Your task to perform on an android device: turn off wifi Image 0: 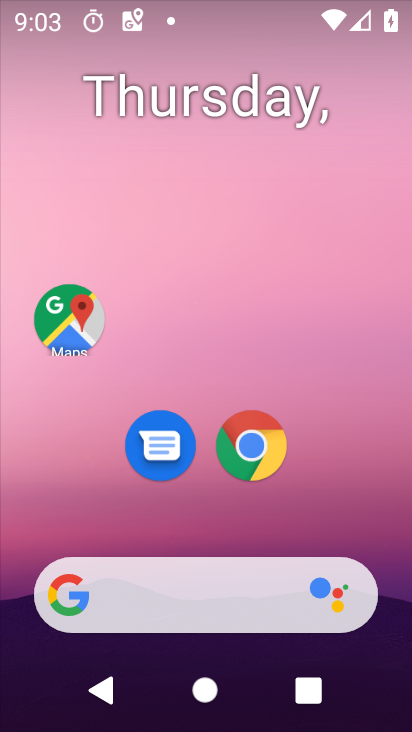
Step 0: drag from (381, 507) to (255, 16)
Your task to perform on an android device: turn off wifi Image 1: 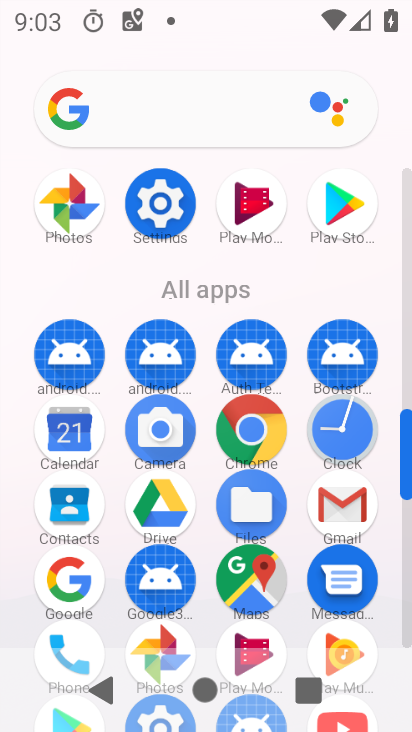
Step 1: click (168, 215)
Your task to perform on an android device: turn off wifi Image 2: 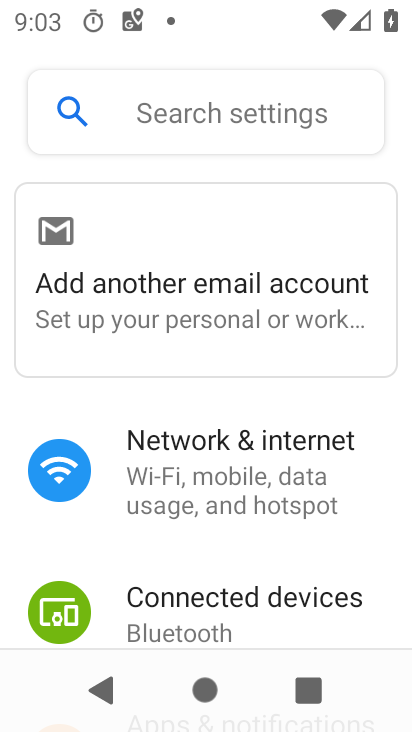
Step 2: click (208, 450)
Your task to perform on an android device: turn off wifi Image 3: 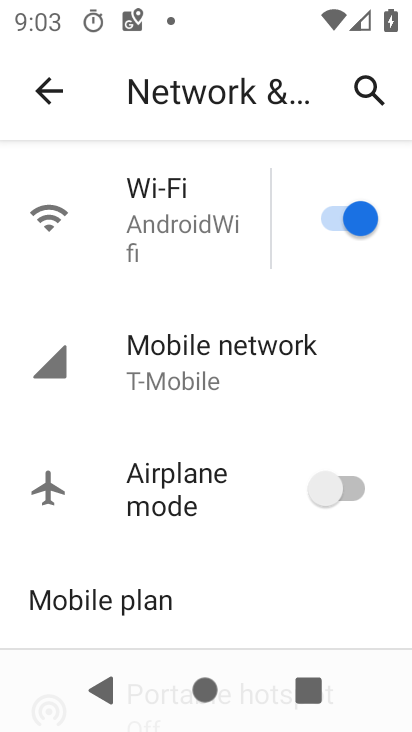
Step 3: click (335, 224)
Your task to perform on an android device: turn off wifi Image 4: 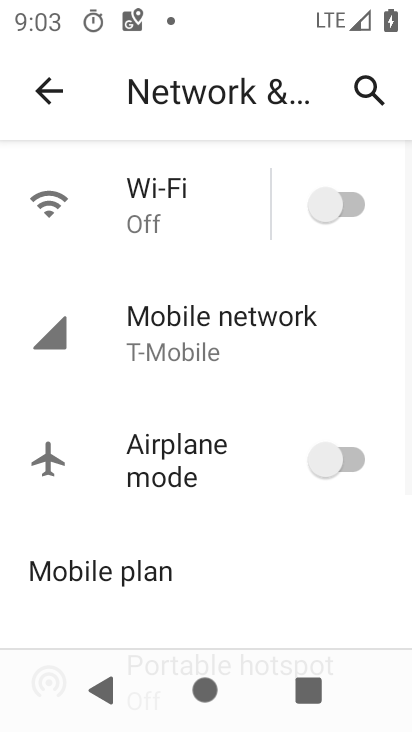
Step 4: task complete